Your task to perform on an android device: open device folders in google photos Image 0: 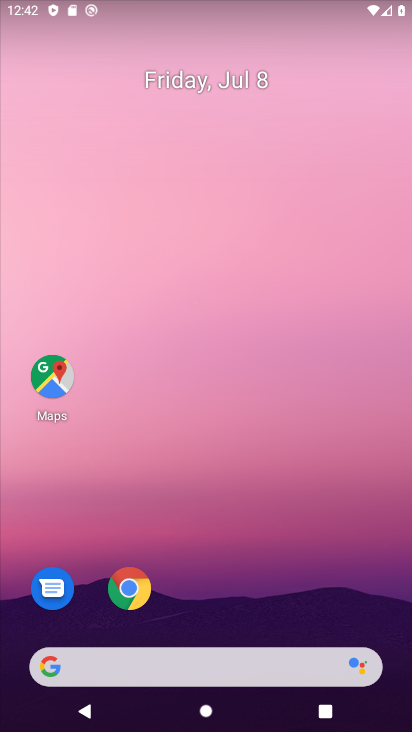
Step 0: drag from (189, 624) to (324, 0)
Your task to perform on an android device: open device folders in google photos Image 1: 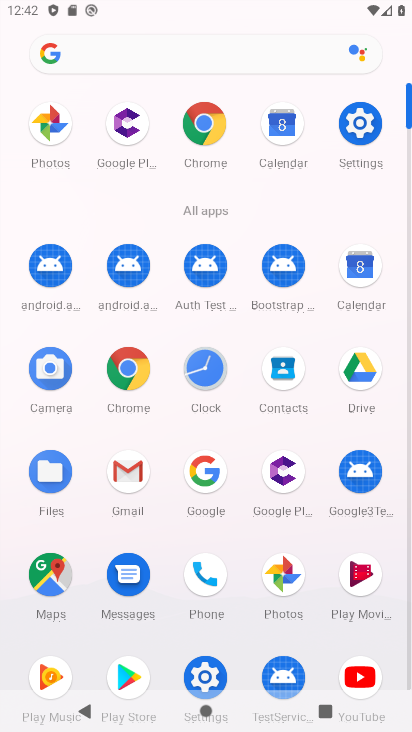
Step 1: click (287, 584)
Your task to perform on an android device: open device folders in google photos Image 2: 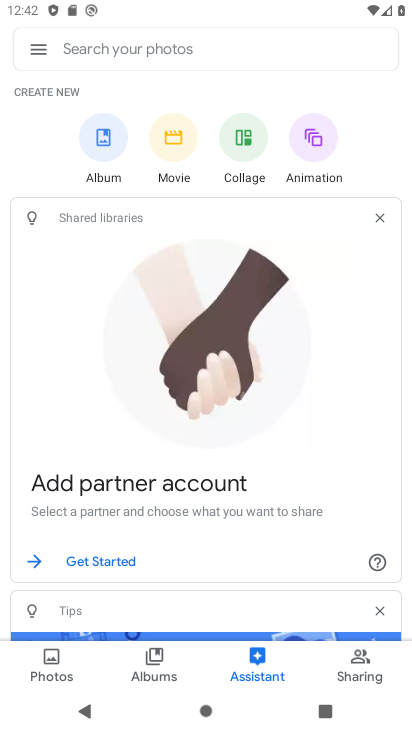
Step 2: click (37, 46)
Your task to perform on an android device: open device folders in google photos Image 3: 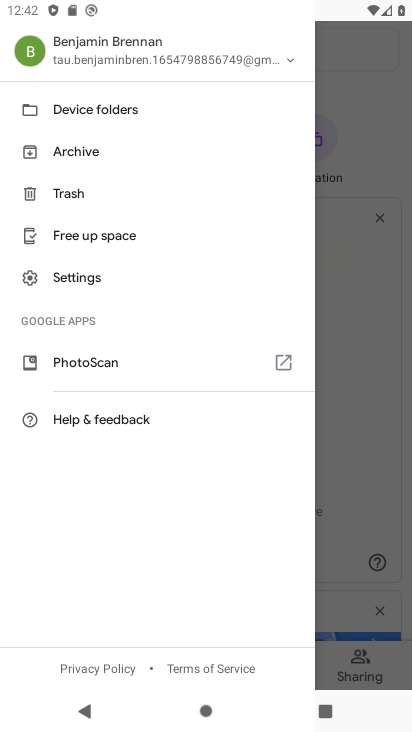
Step 3: click (63, 111)
Your task to perform on an android device: open device folders in google photos Image 4: 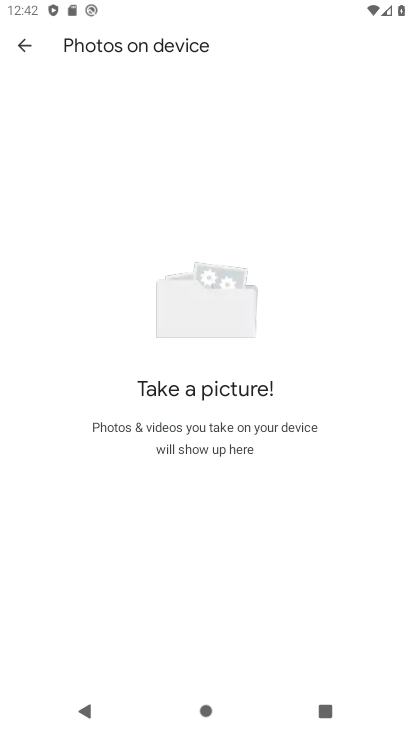
Step 4: task complete